Your task to perform on an android device: Open Chrome and go to settings Image 0: 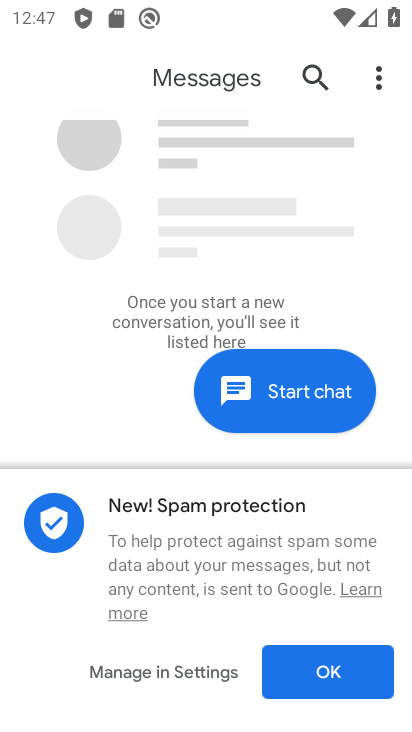
Step 0: press home button
Your task to perform on an android device: Open Chrome and go to settings Image 1: 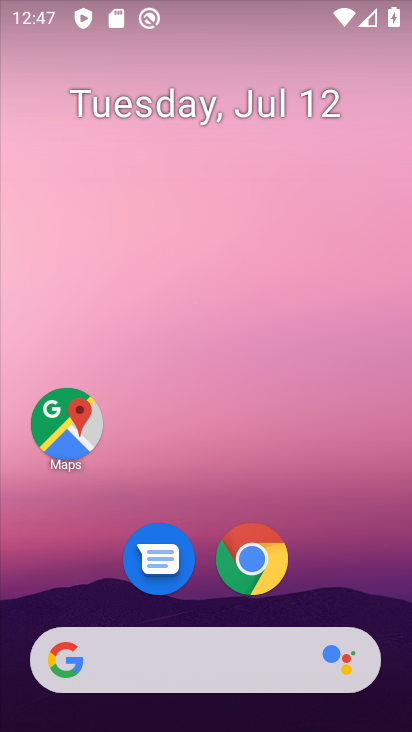
Step 1: drag from (342, 600) to (369, 286)
Your task to perform on an android device: Open Chrome and go to settings Image 2: 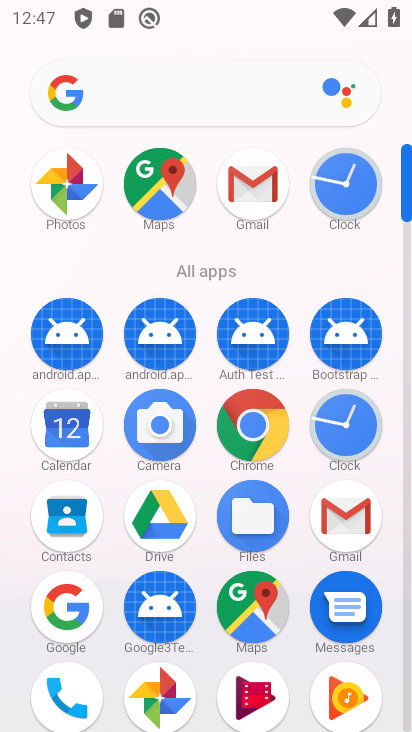
Step 2: click (256, 433)
Your task to perform on an android device: Open Chrome and go to settings Image 3: 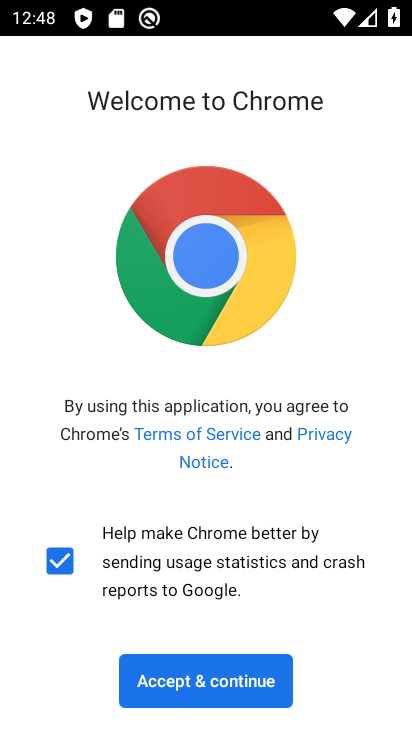
Step 3: click (216, 685)
Your task to perform on an android device: Open Chrome and go to settings Image 4: 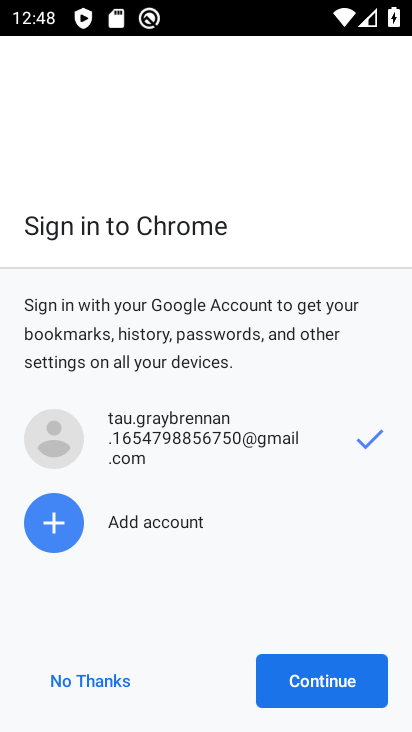
Step 4: click (333, 682)
Your task to perform on an android device: Open Chrome and go to settings Image 5: 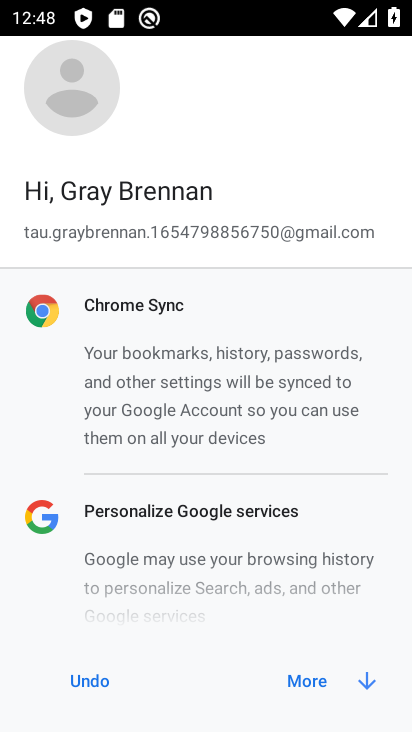
Step 5: click (307, 683)
Your task to perform on an android device: Open Chrome and go to settings Image 6: 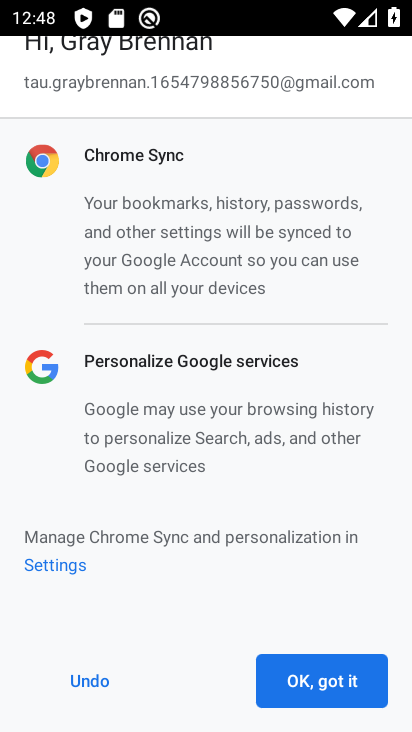
Step 6: click (336, 683)
Your task to perform on an android device: Open Chrome and go to settings Image 7: 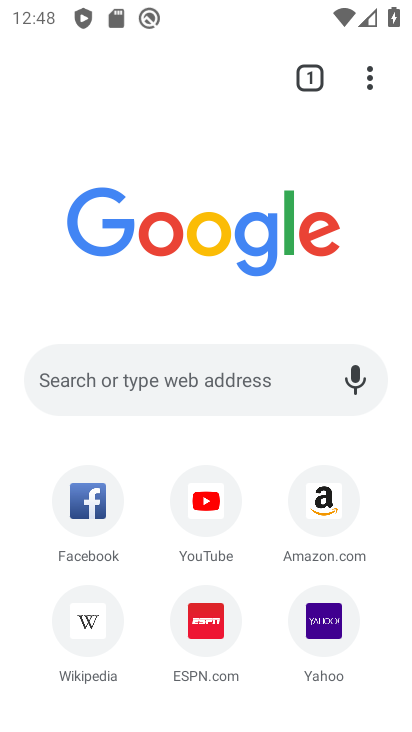
Step 7: click (371, 78)
Your task to perform on an android device: Open Chrome and go to settings Image 8: 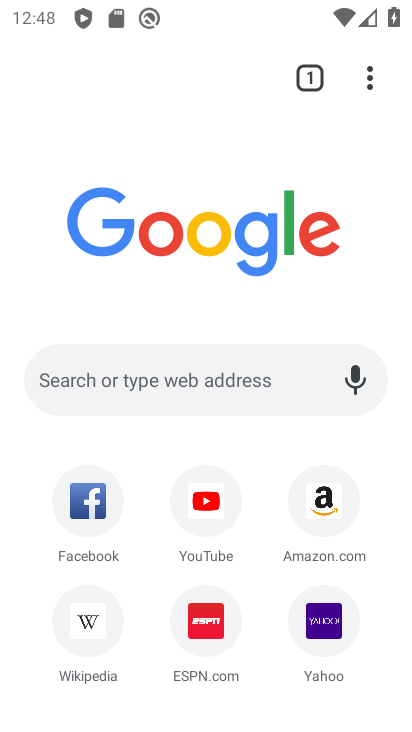
Step 8: click (372, 80)
Your task to perform on an android device: Open Chrome and go to settings Image 9: 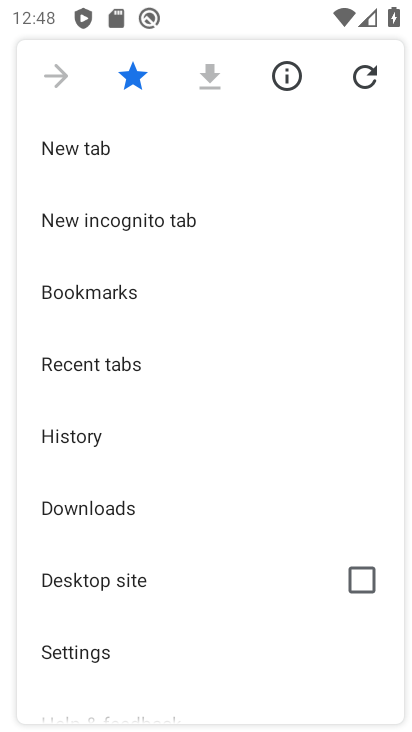
Step 9: drag from (261, 578) to (254, 293)
Your task to perform on an android device: Open Chrome and go to settings Image 10: 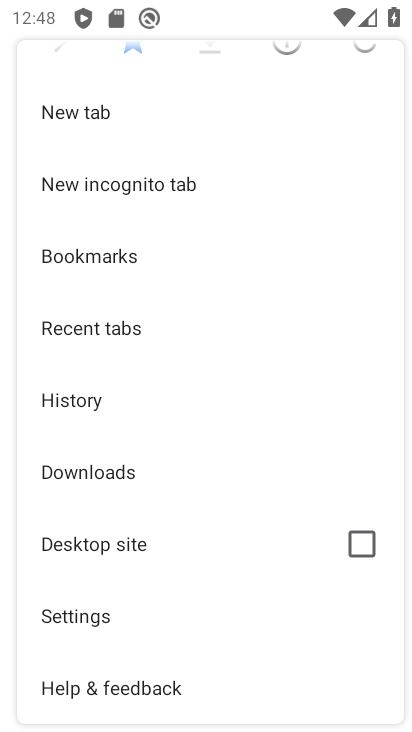
Step 10: drag from (270, 550) to (268, 358)
Your task to perform on an android device: Open Chrome and go to settings Image 11: 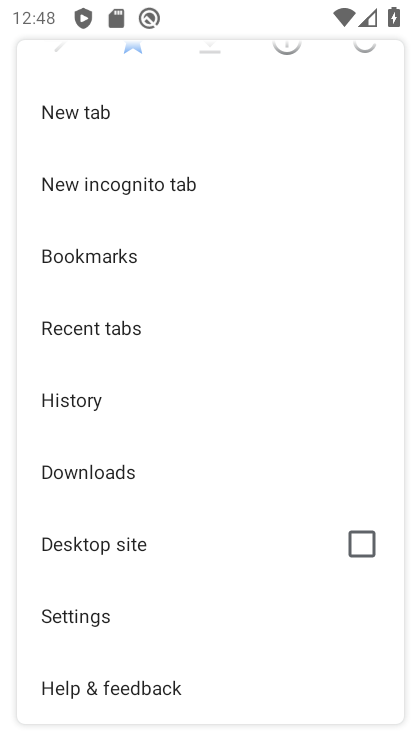
Step 11: click (103, 617)
Your task to perform on an android device: Open Chrome and go to settings Image 12: 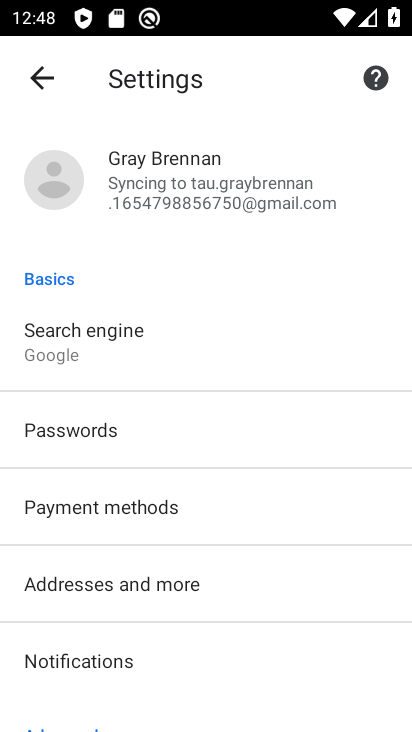
Step 12: task complete